Your task to perform on an android device: Find coffee shops on Maps Image 0: 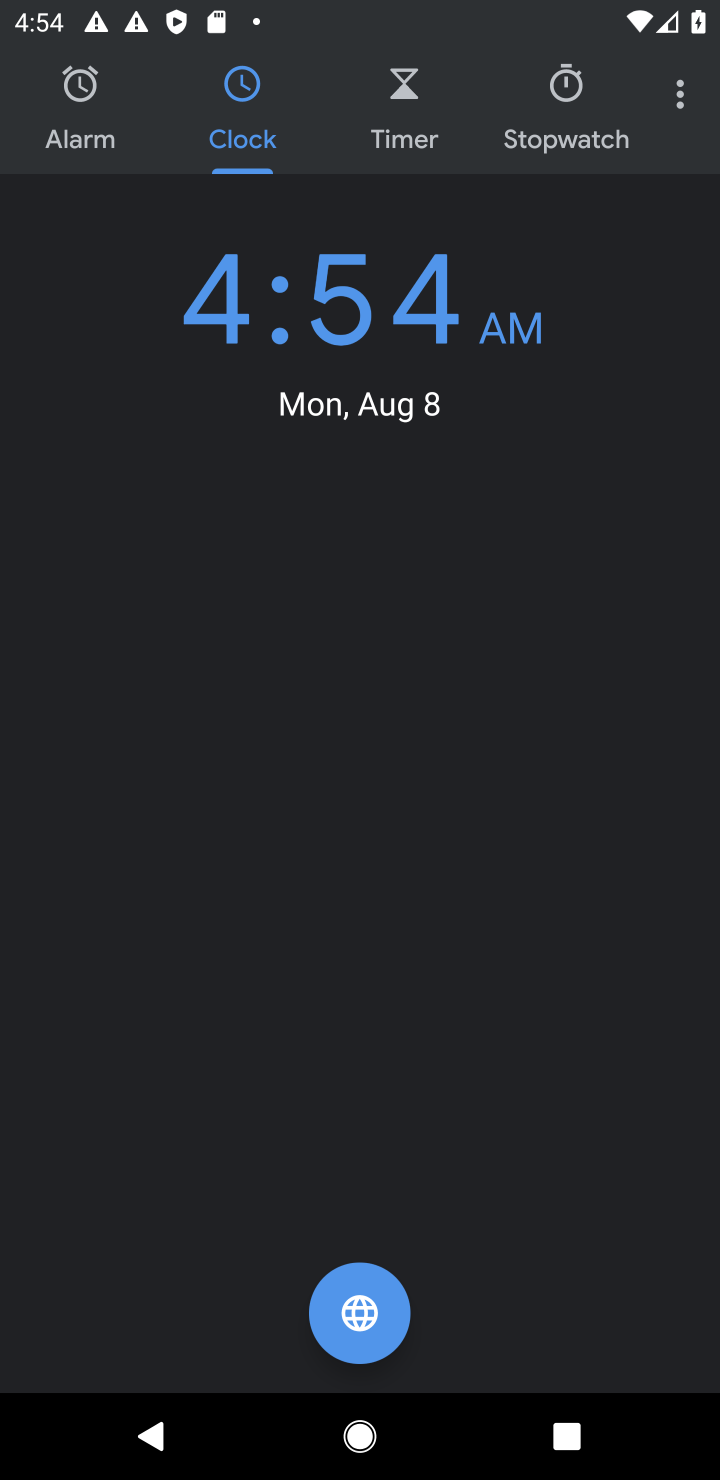
Step 0: press home button
Your task to perform on an android device: Find coffee shops on Maps Image 1: 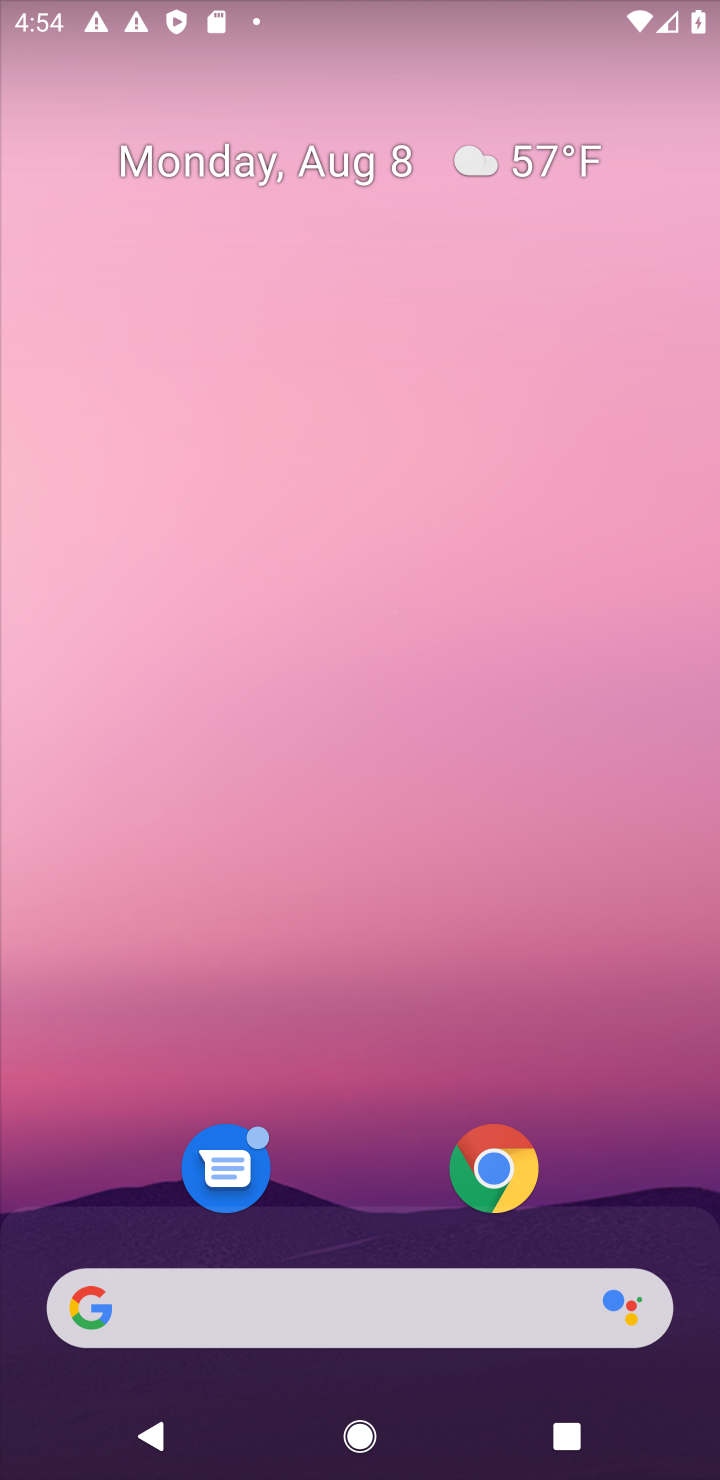
Step 1: drag from (374, 1333) to (348, 348)
Your task to perform on an android device: Find coffee shops on Maps Image 2: 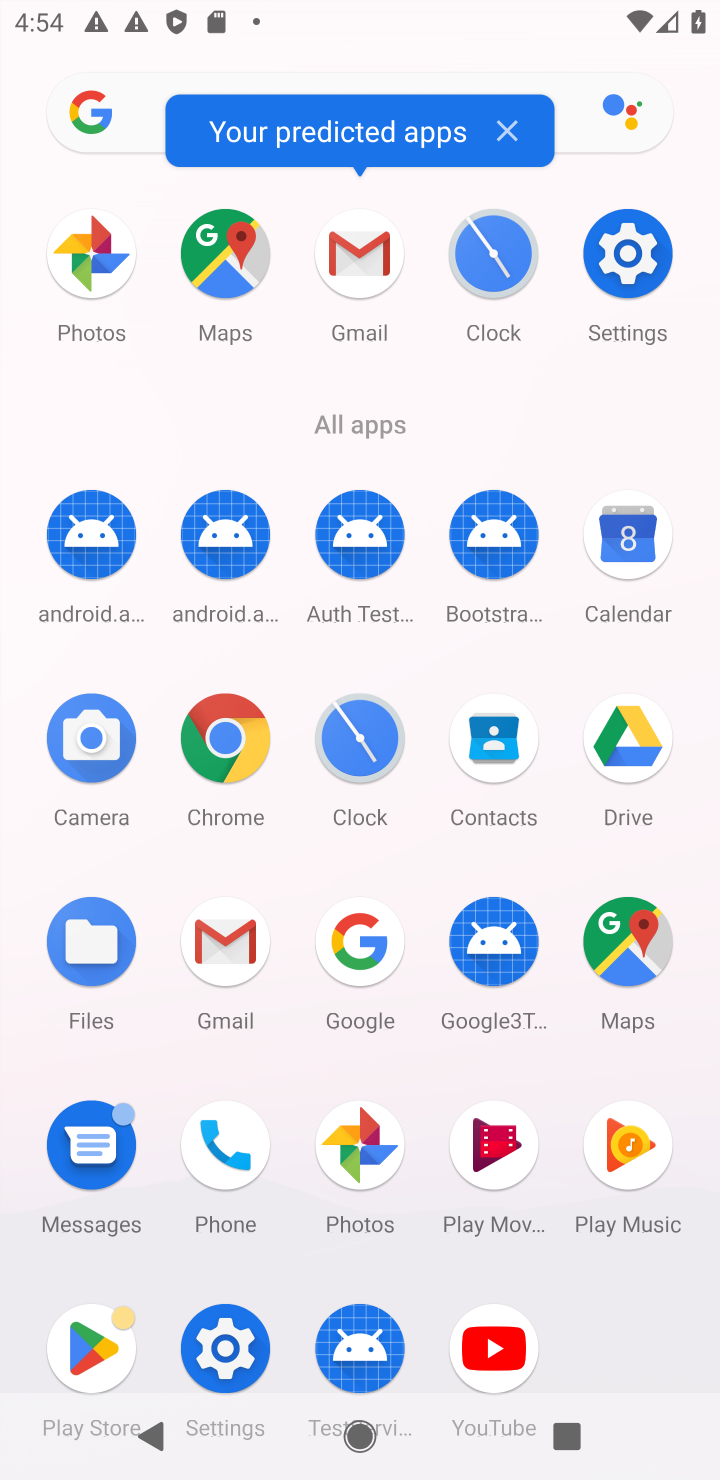
Step 2: click (652, 945)
Your task to perform on an android device: Find coffee shops on Maps Image 3: 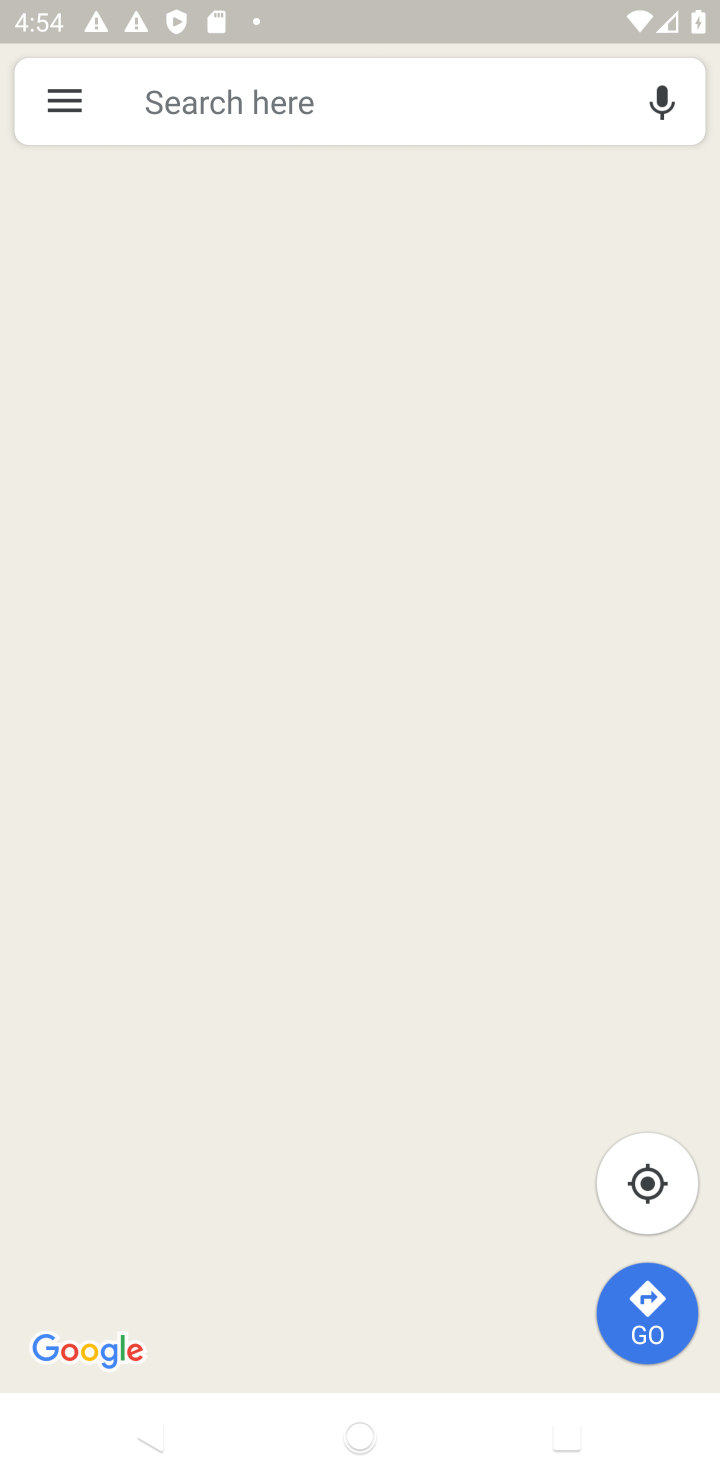
Step 3: click (293, 93)
Your task to perform on an android device: Find coffee shops on Maps Image 4: 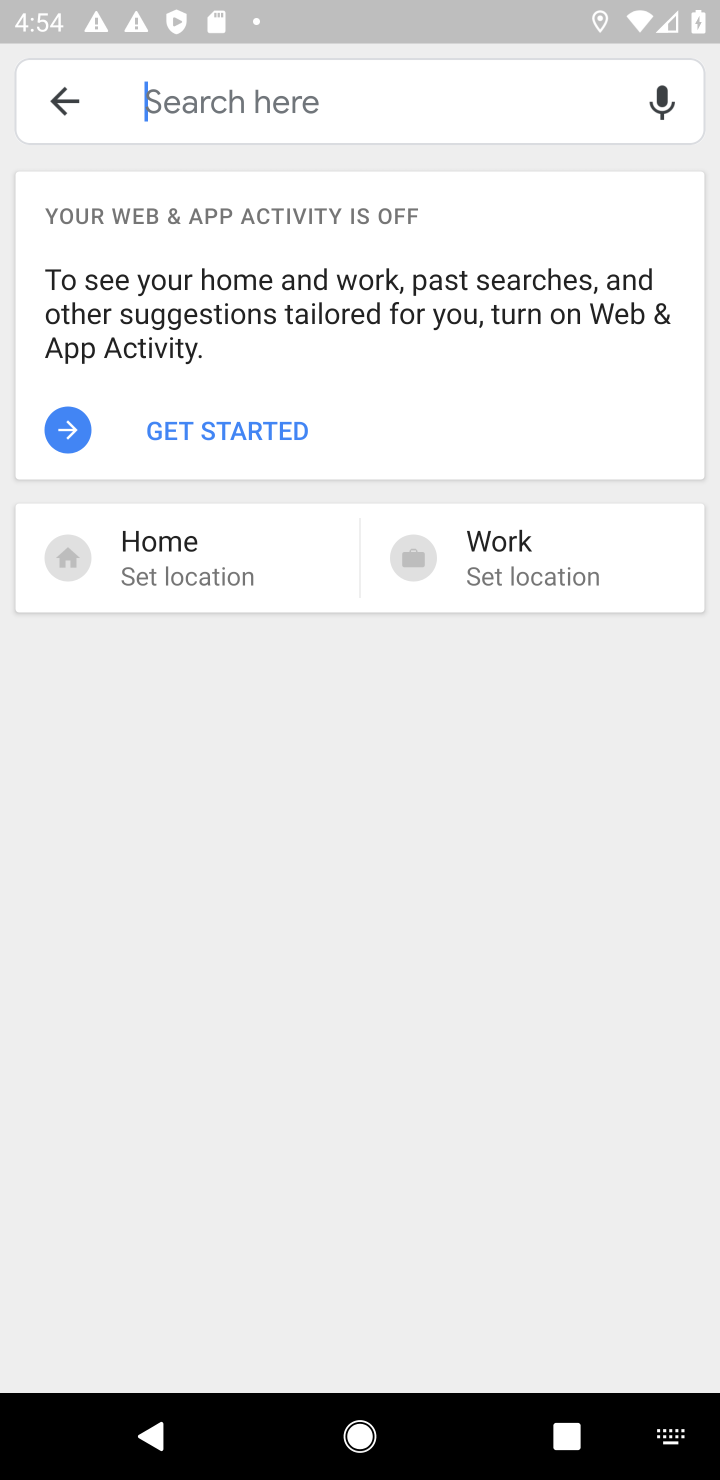
Step 4: type "coffee shops"
Your task to perform on an android device: Find coffee shops on Maps Image 5: 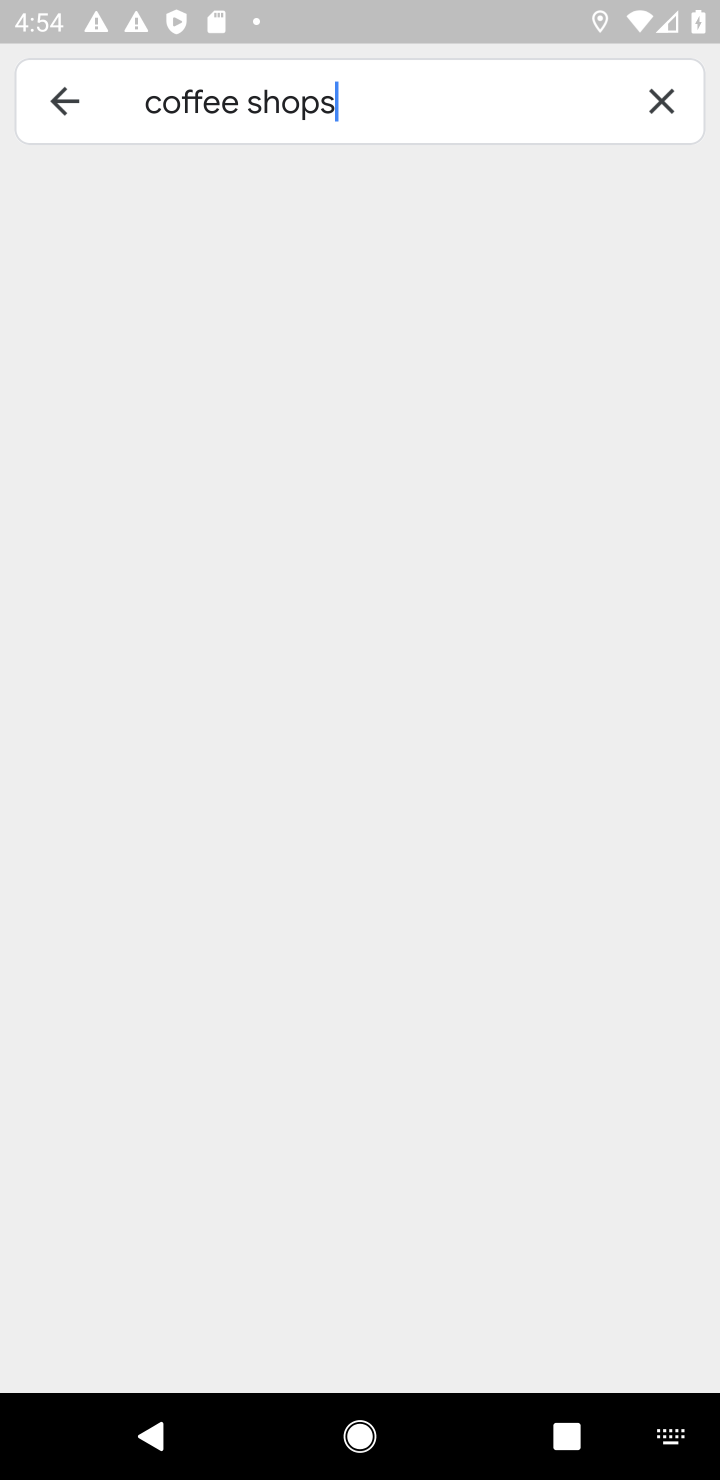
Step 5: press enter
Your task to perform on an android device: Find coffee shops on Maps Image 6: 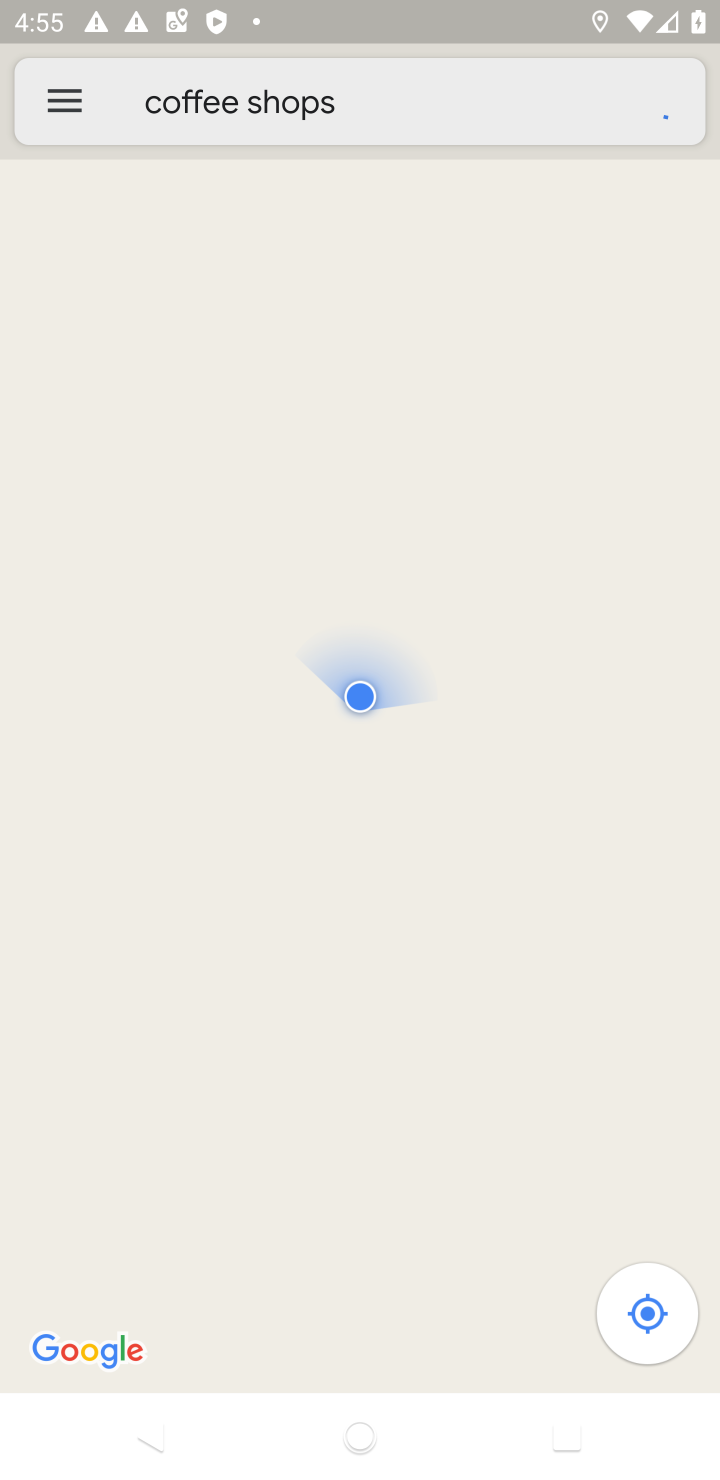
Step 6: task complete